Your task to perform on an android device: Open notification settings Image 0: 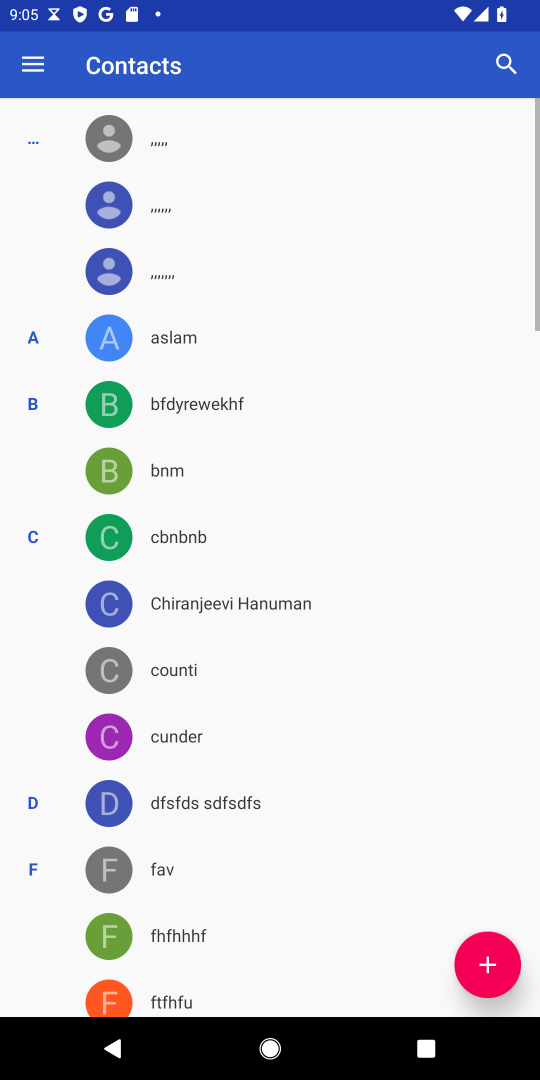
Step 0: press home button
Your task to perform on an android device: Open notification settings Image 1: 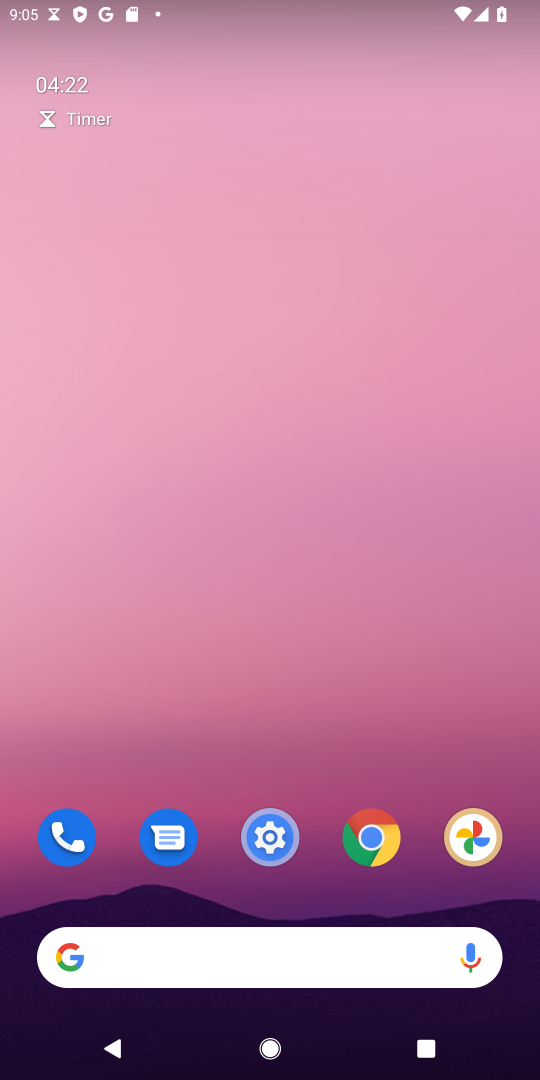
Step 1: drag from (320, 914) to (316, 223)
Your task to perform on an android device: Open notification settings Image 2: 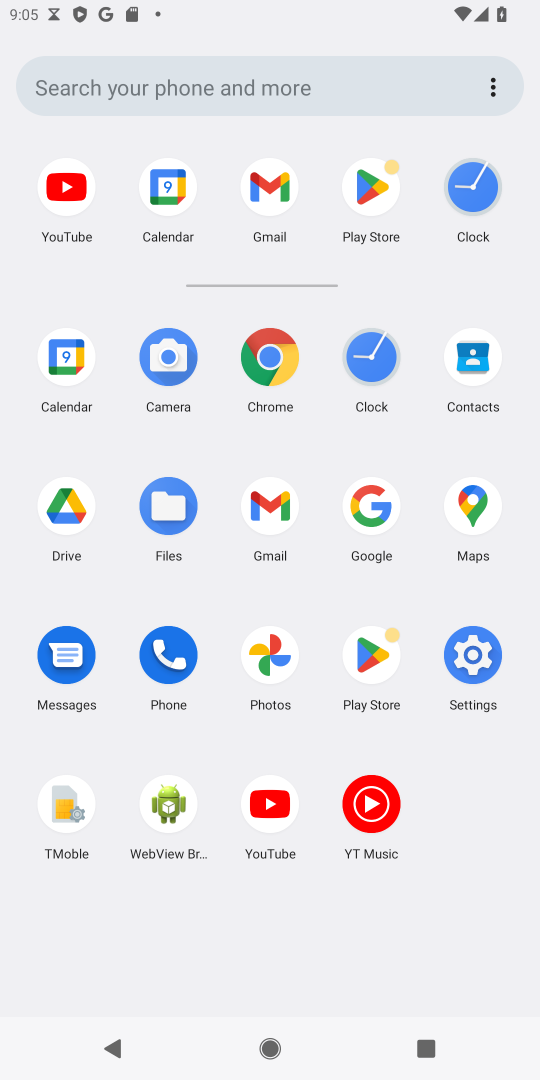
Step 2: click (477, 651)
Your task to perform on an android device: Open notification settings Image 3: 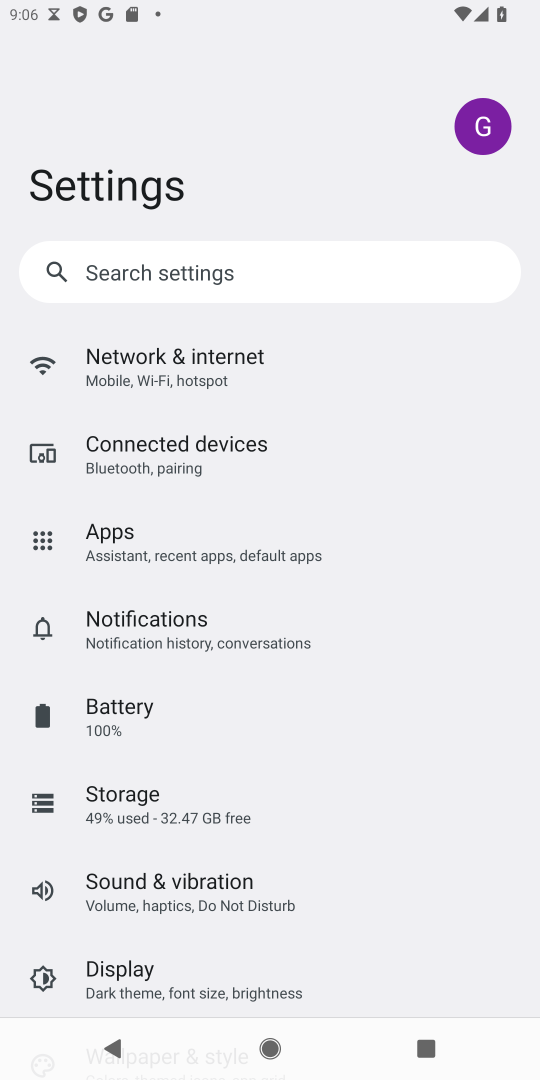
Step 3: click (174, 630)
Your task to perform on an android device: Open notification settings Image 4: 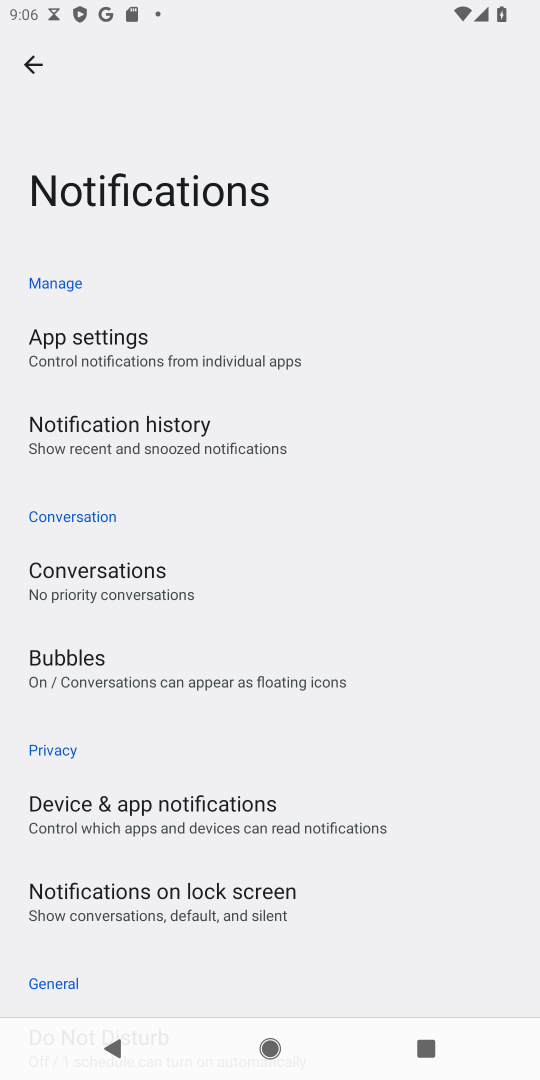
Step 4: task complete